Your task to perform on an android device: toggle airplane mode Image 0: 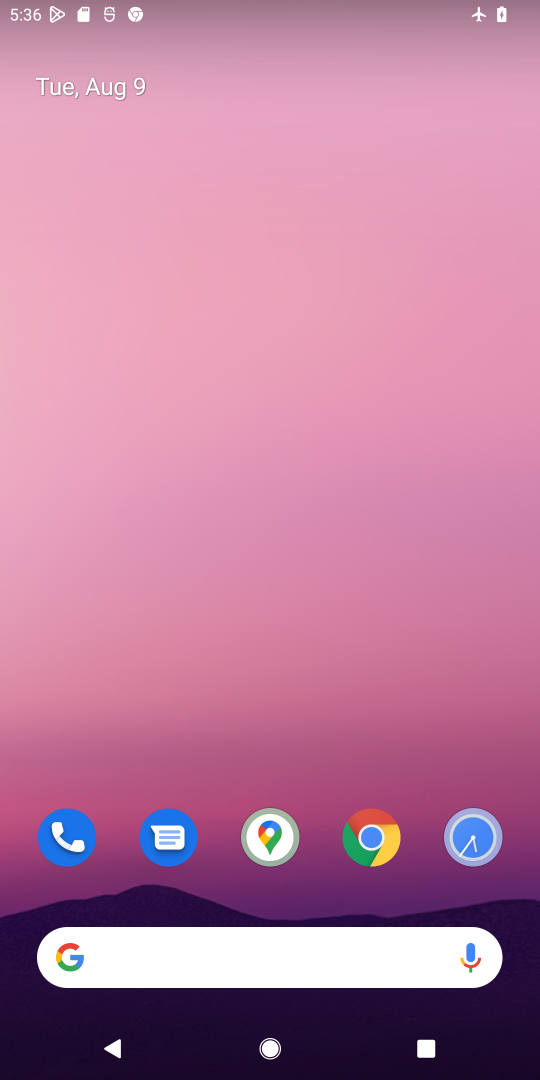
Step 0: drag from (233, 701) to (396, 73)
Your task to perform on an android device: toggle airplane mode Image 1: 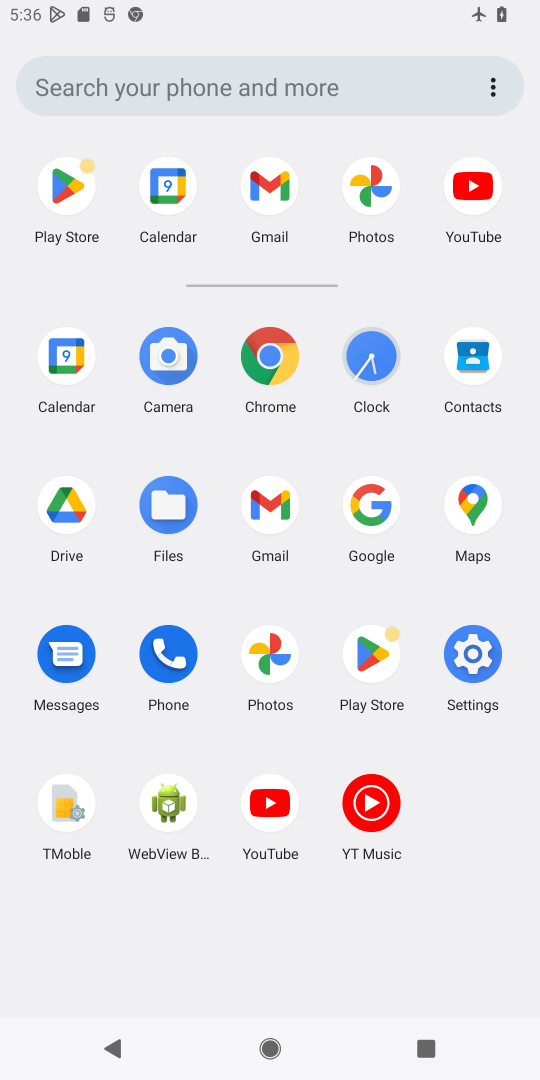
Step 1: click (467, 655)
Your task to perform on an android device: toggle airplane mode Image 2: 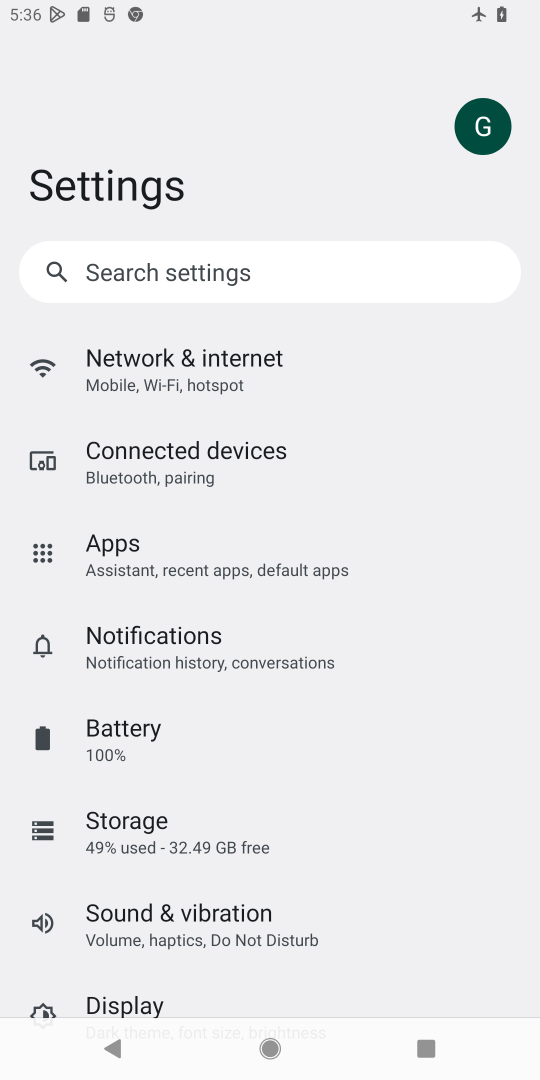
Step 2: click (234, 361)
Your task to perform on an android device: toggle airplane mode Image 3: 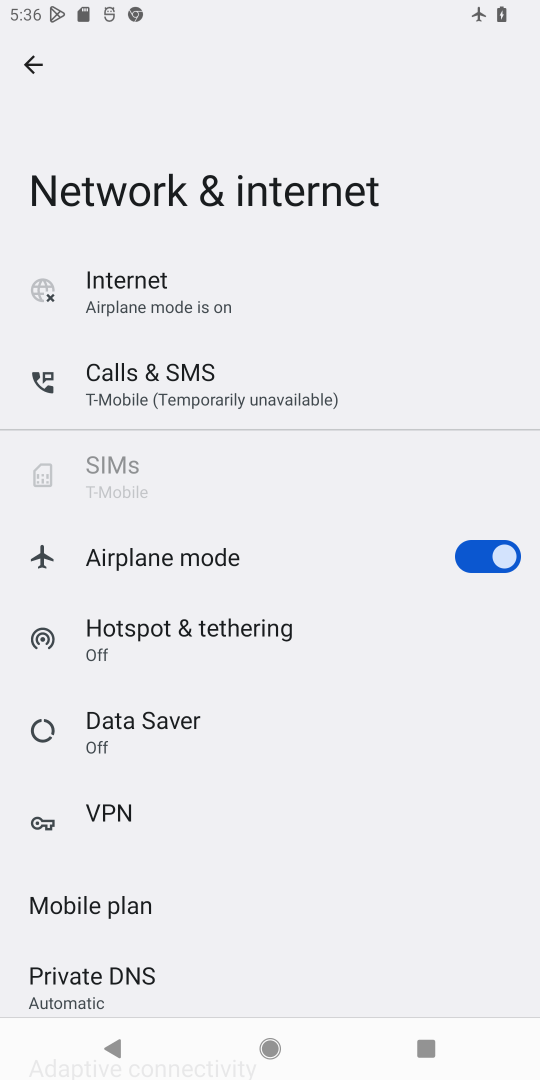
Step 3: click (442, 578)
Your task to perform on an android device: toggle airplane mode Image 4: 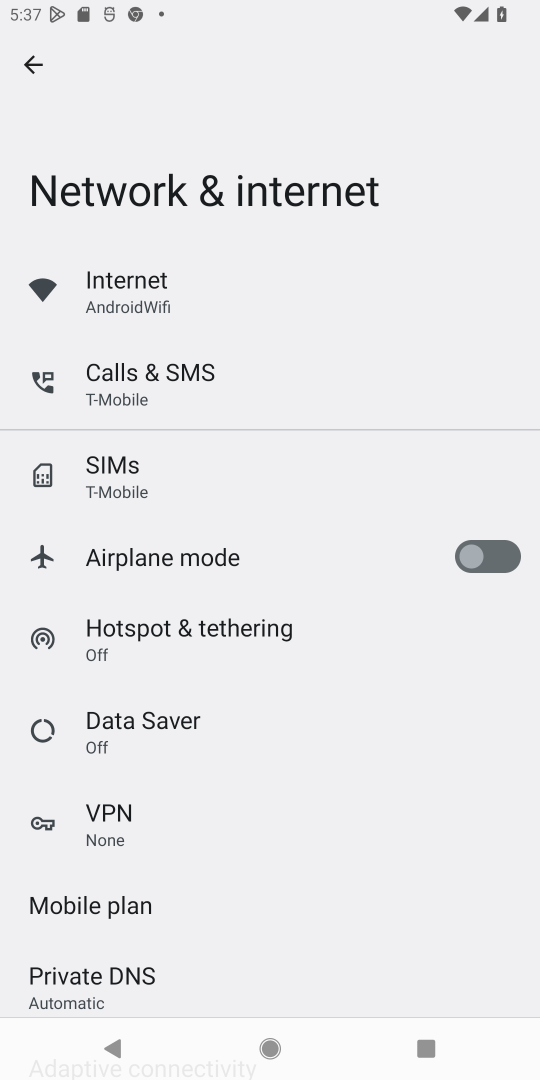
Step 4: task complete